Your task to perform on an android device: install app "Chime – Mobile Banking" Image 0: 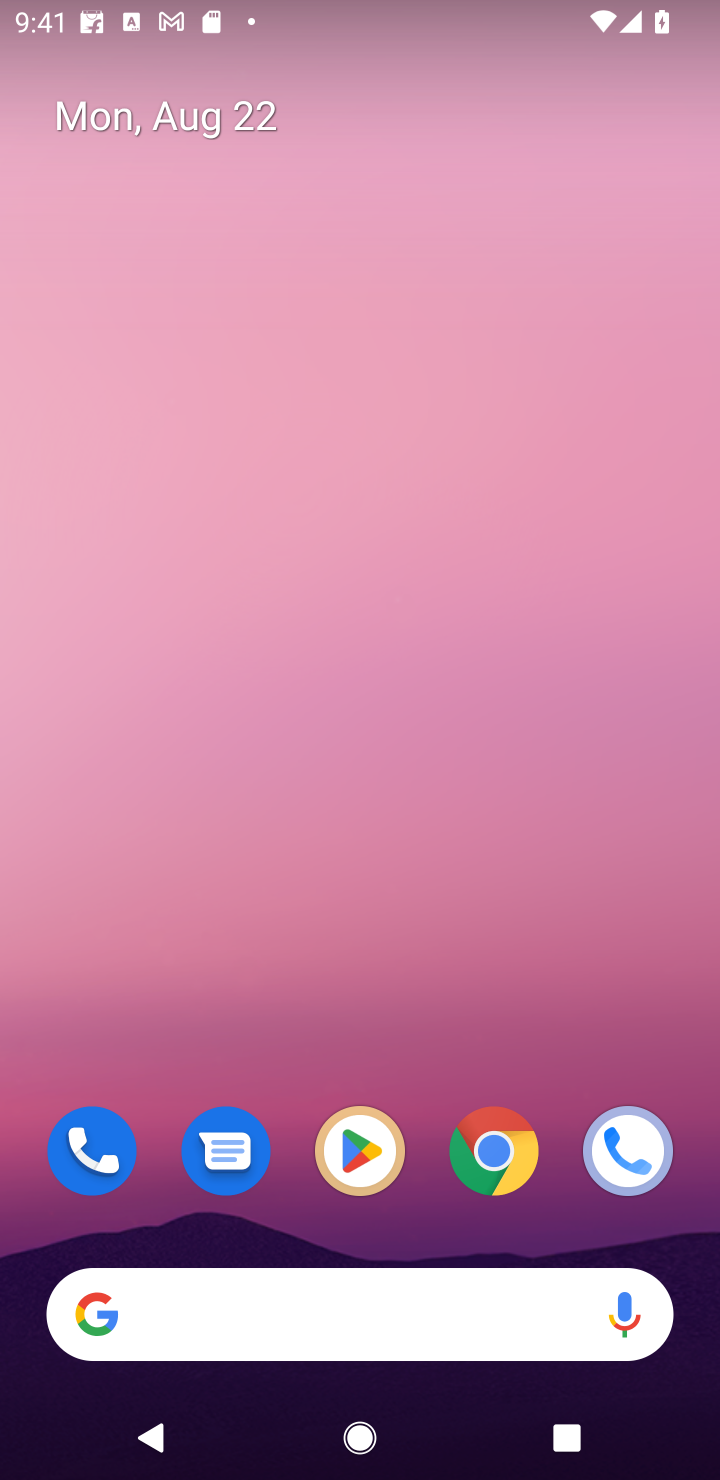
Step 0: press home button
Your task to perform on an android device: install app "Chime – Mobile Banking" Image 1: 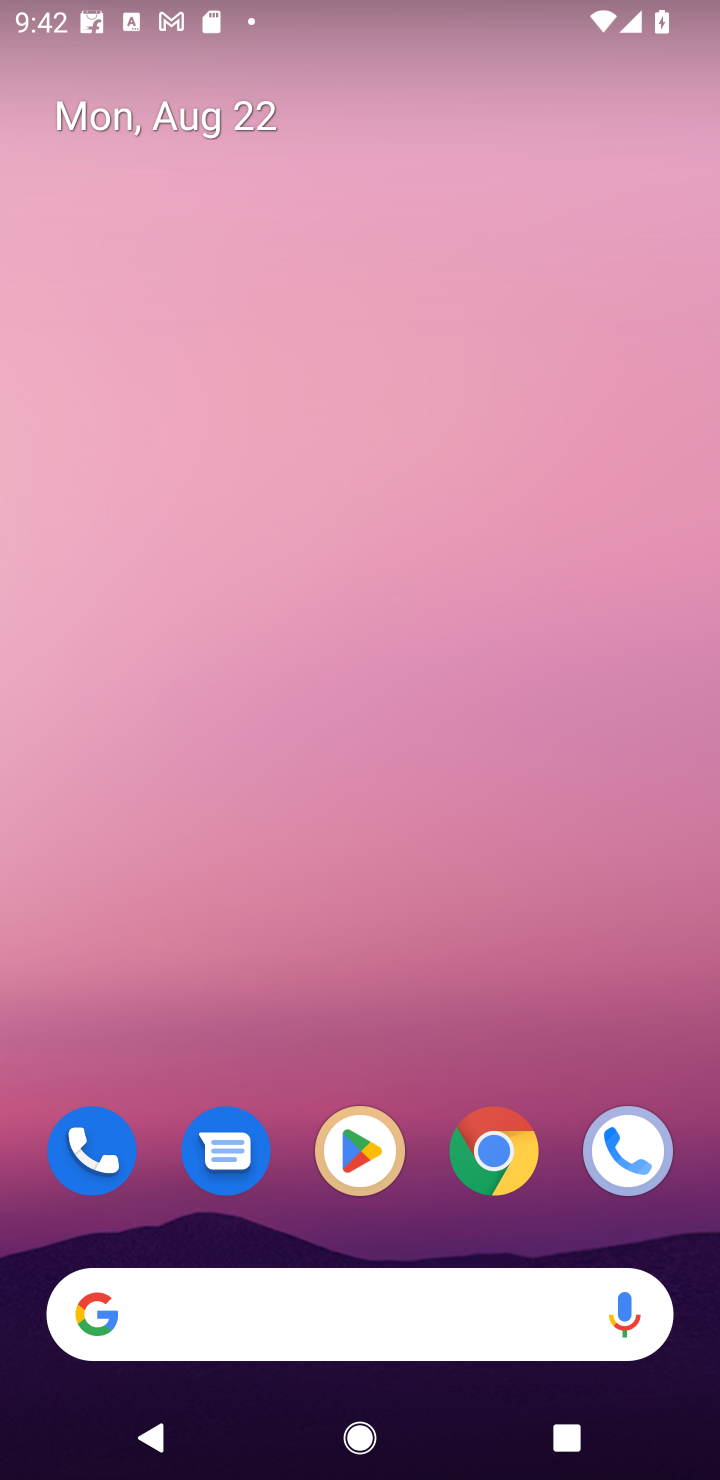
Step 1: click (348, 1134)
Your task to perform on an android device: install app "Chime – Mobile Banking" Image 2: 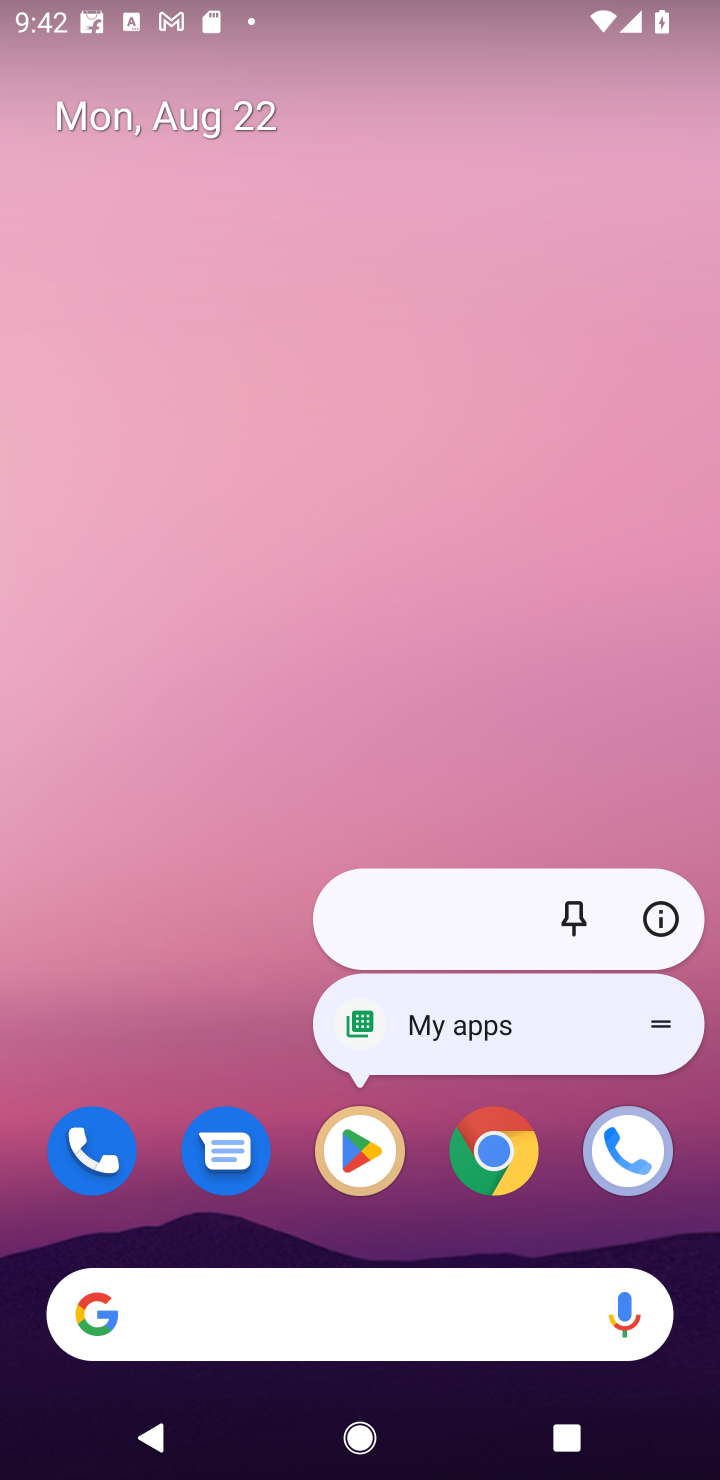
Step 2: click (350, 1143)
Your task to perform on an android device: install app "Chime – Mobile Banking" Image 3: 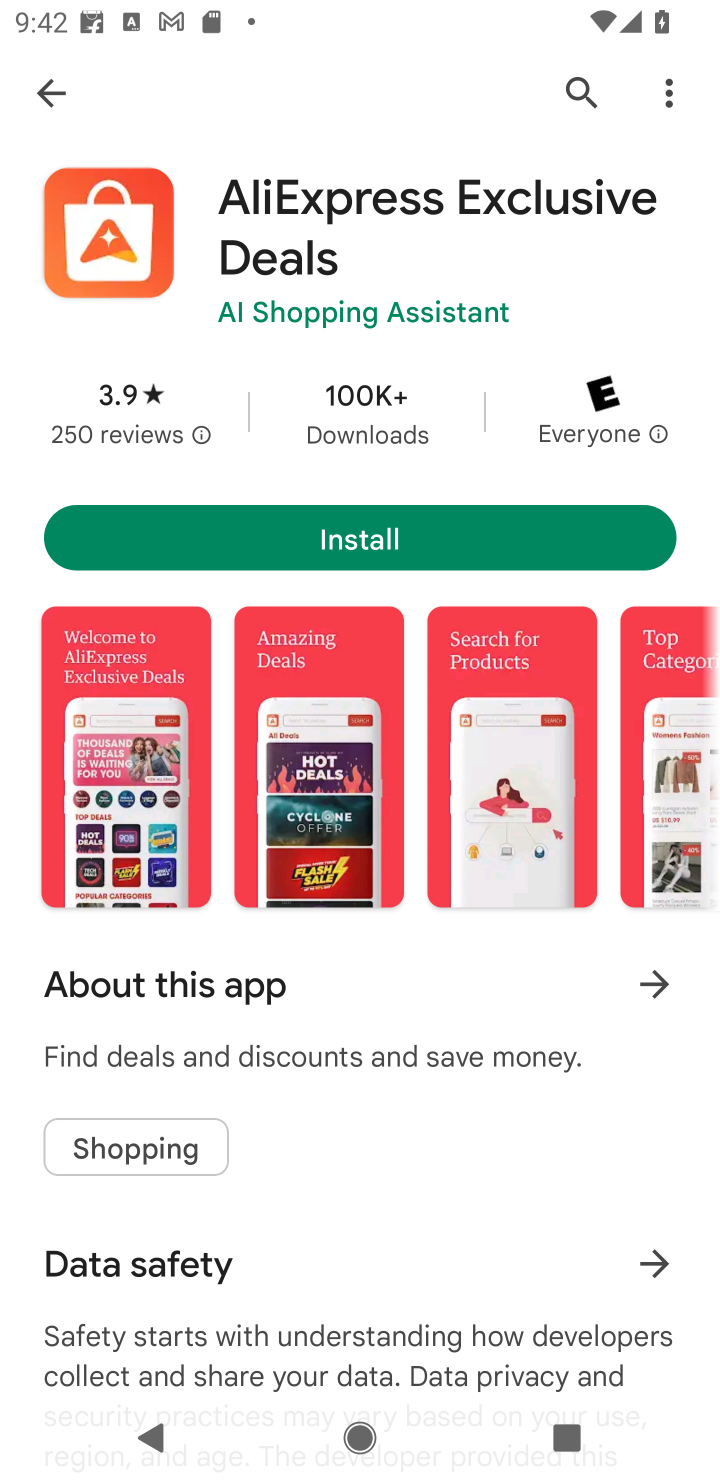
Step 3: click (564, 89)
Your task to perform on an android device: install app "Chime – Mobile Banking" Image 4: 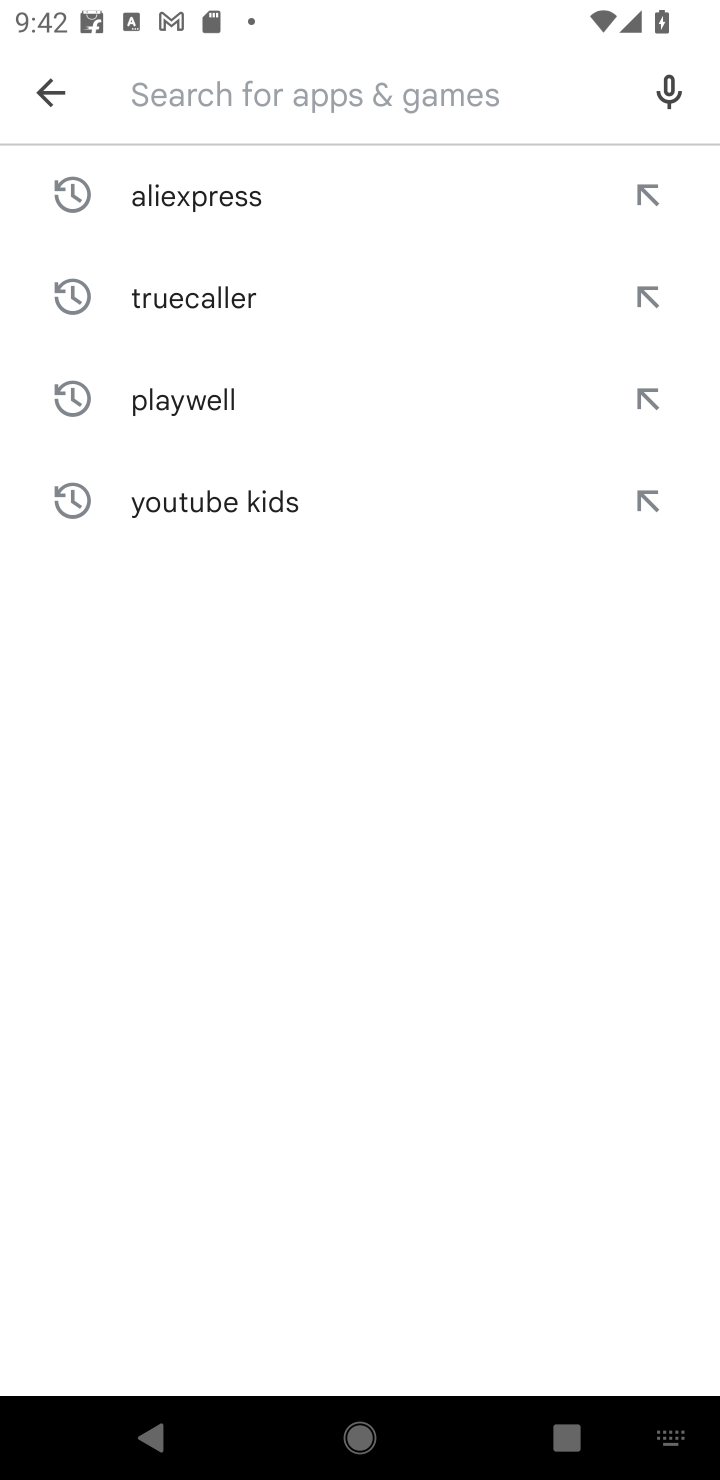
Step 4: type "Chime Mobile Banking"
Your task to perform on an android device: install app "Chime – Mobile Banking" Image 5: 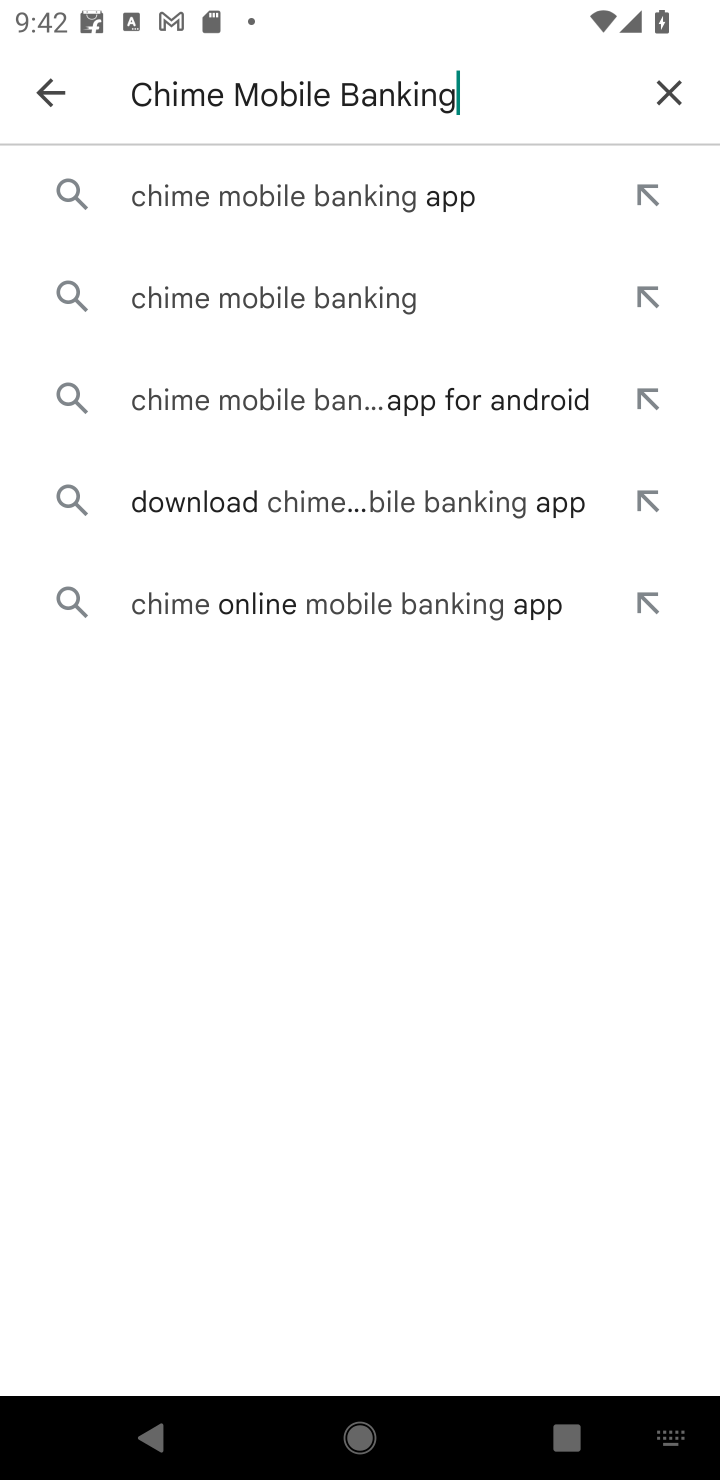
Step 5: click (451, 196)
Your task to perform on an android device: install app "Chime – Mobile Banking" Image 6: 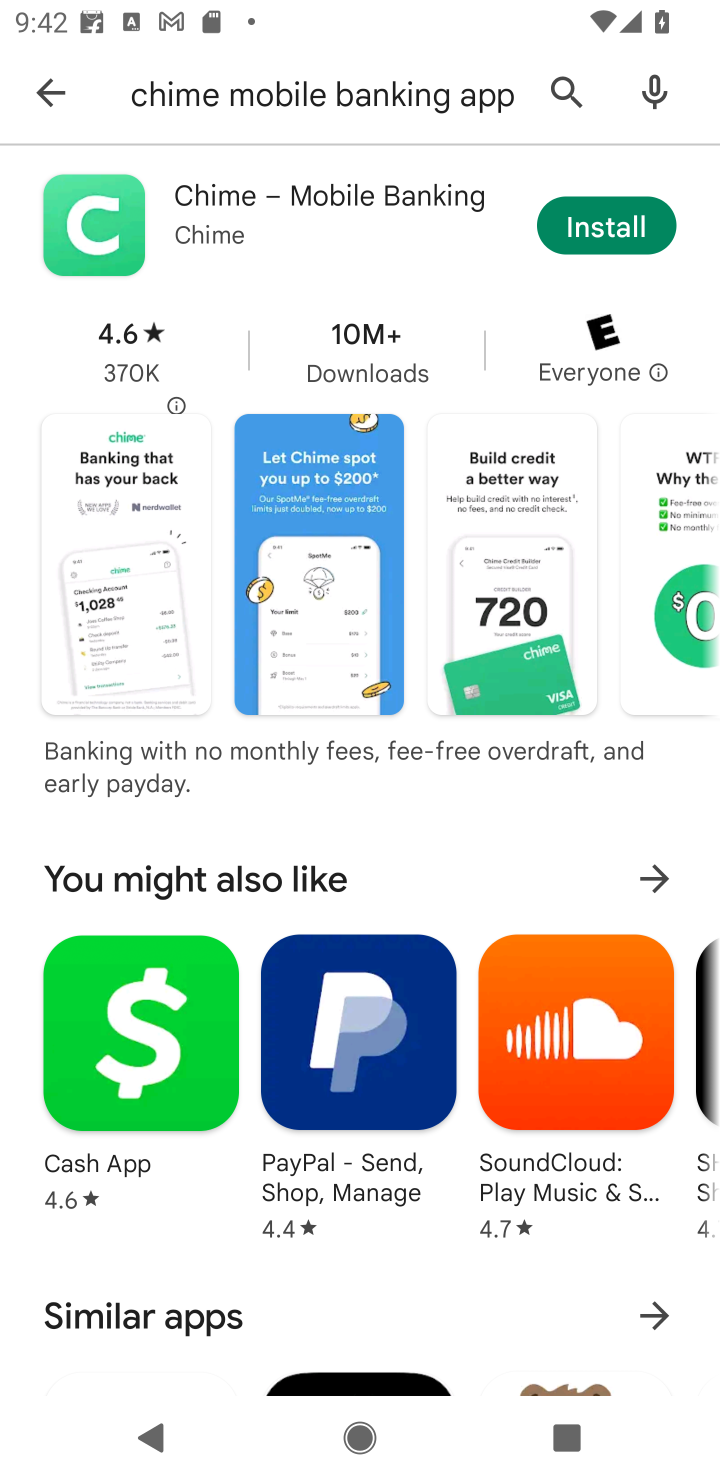
Step 6: click (594, 217)
Your task to perform on an android device: install app "Chime – Mobile Banking" Image 7: 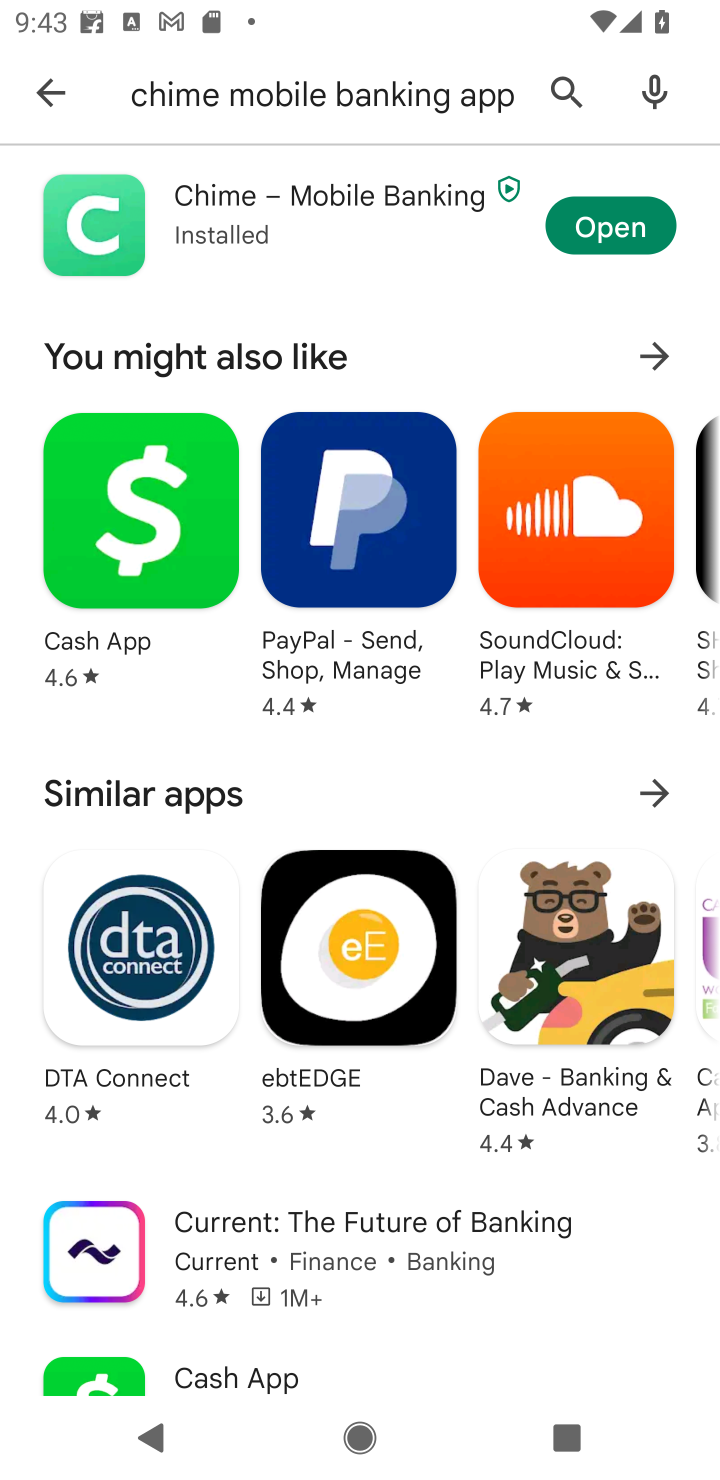
Step 7: task complete